Your task to perform on an android device: Open calendar and show me the first week of next month Image 0: 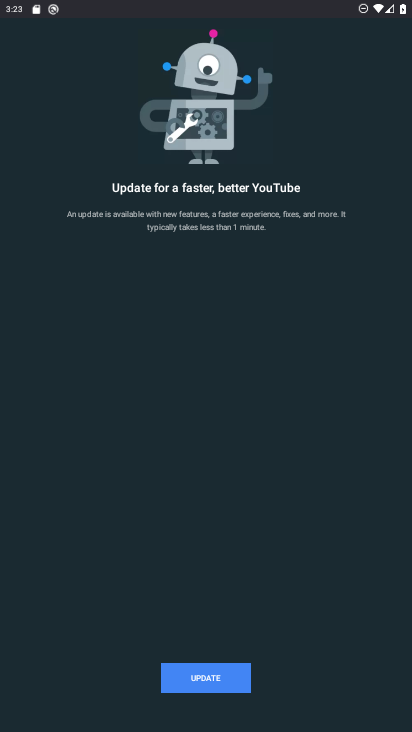
Step 0: press home button
Your task to perform on an android device: Open calendar and show me the first week of next month Image 1: 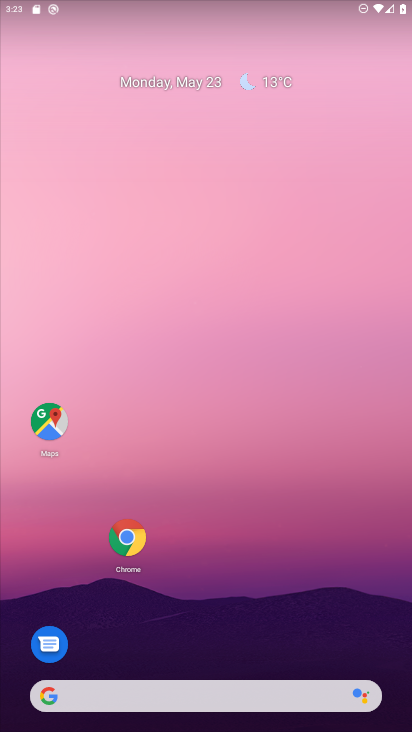
Step 1: drag from (350, 567) to (273, 152)
Your task to perform on an android device: Open calendar and show me the first week of next month Image 2: 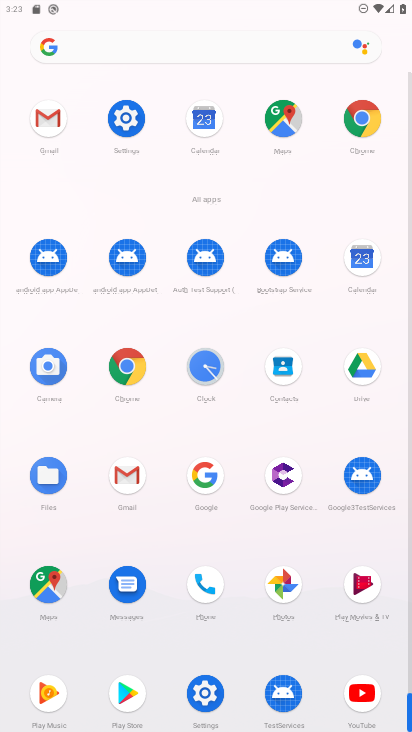
Step 2: click (211, 113)
Your task to perform on an android device: Open calendar and show me the first week of next month Image 3: 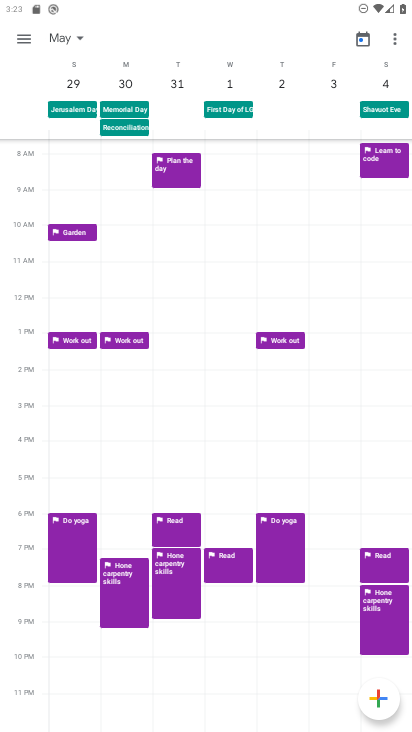
Step 3: click (73, 33)
Your task to perform on an android device: Open calendar and show me the first week of next month Image 4: 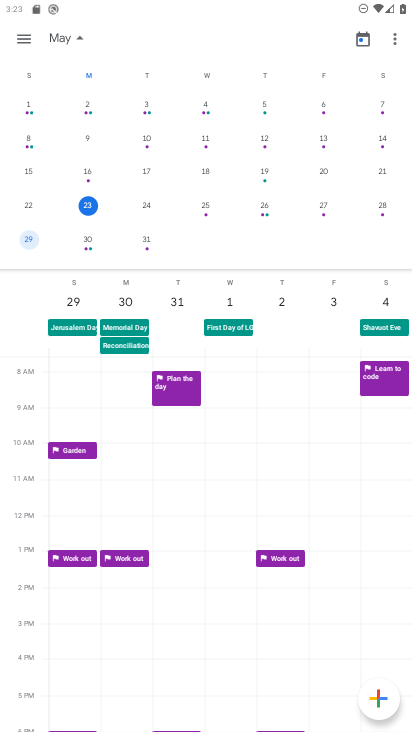
Step 4: drag from (305, 132) to (0, 126)
Your task to perform on an android device: Open calendar and show me the first week of next month Image 5: 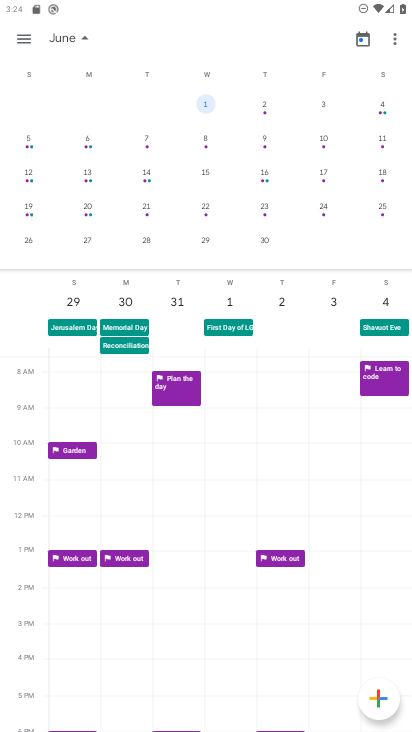
Step 5: click (27, 41)
Your task to perform on an android device: Open calendar and show me the first week of next month Image 6: 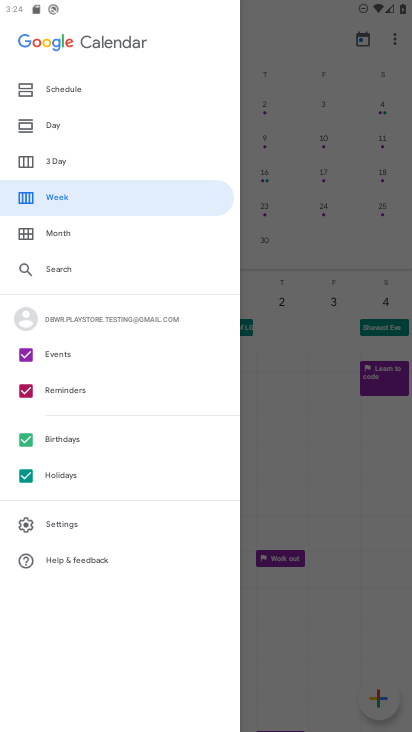
Step 6: click (68, 193)
Your task to perform on an android device: Open calendar and show me the first week of next month Image 7: 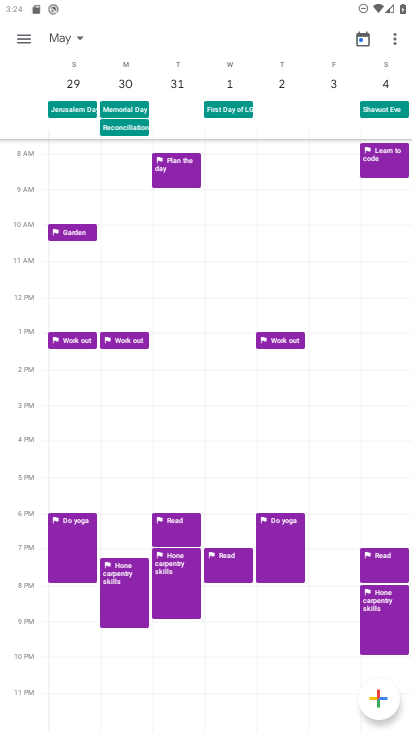
Step 7: drag from (347, 98) to (115, 99)
Your task to perform on an android device: Open calendar and show me the first week of next month Image 8: 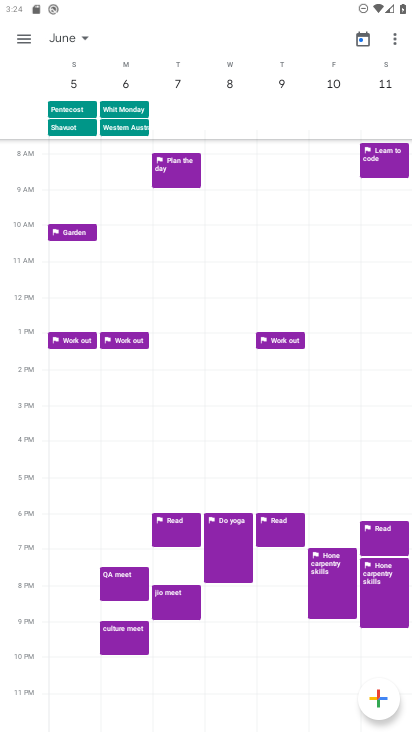
Step 8: click (74, 84)
Your task to perform on an android device: Open calendar and show me the first week of next month Image 9: 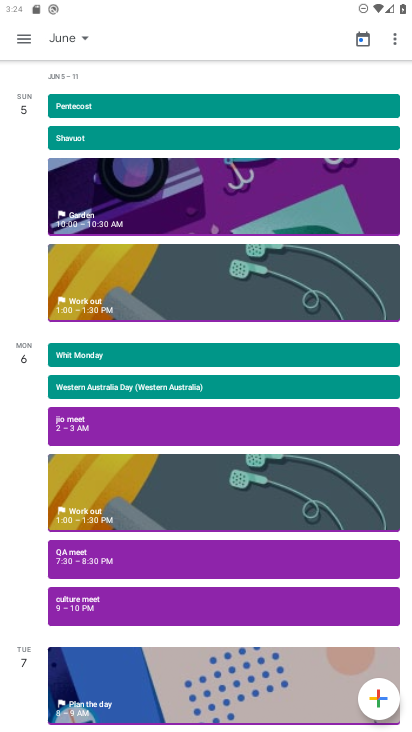
Step 9: click (79, 38)
Your task to perform on an android device: Open calendar and show me the first week of next month Image 10: 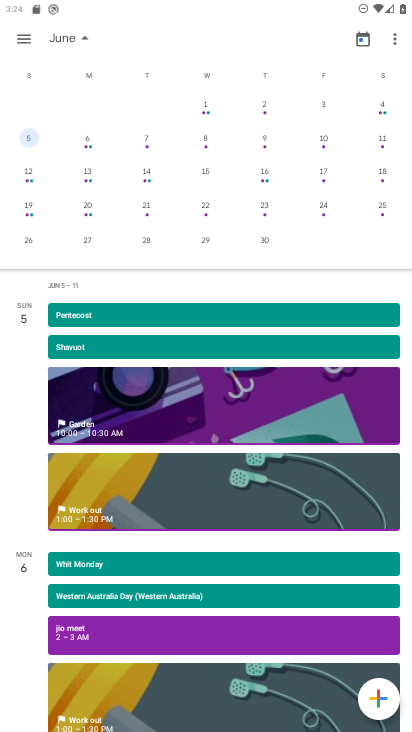
Step 10: click (21, 37)
Your task to perform on an android device: Open calendar and show me the first week of next month Image 11: 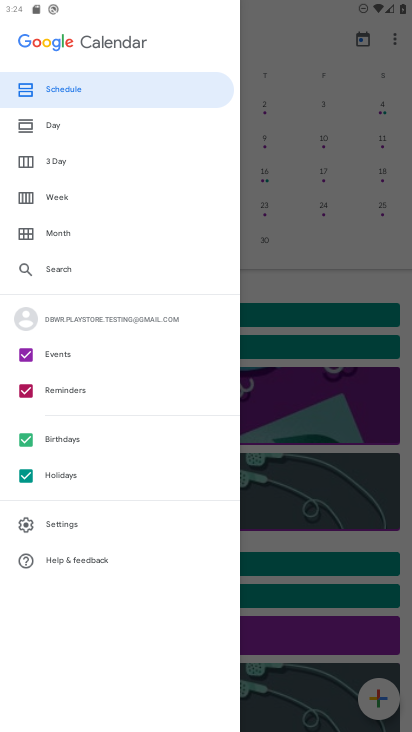
Step 11: click (56, 155)
Your task to perform on an android device: Open calendar and show me the first week of next month Image 12: 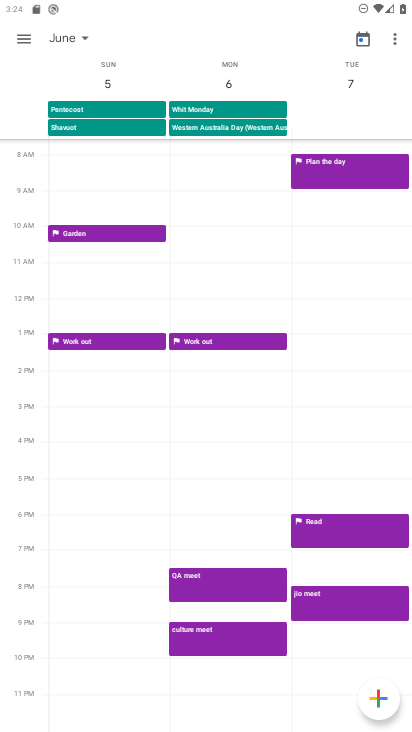
Step 12: click (28, 49)
Your task to perform on an android device: Open calendar and show me the first week of next month Image 13: 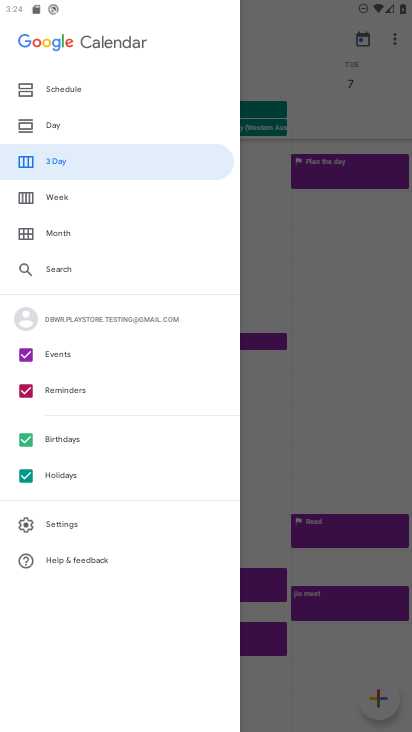
Step 13: click (50, 199)
Your task to perform on an android device: Open calendar and show me the first week of next month Image 14: 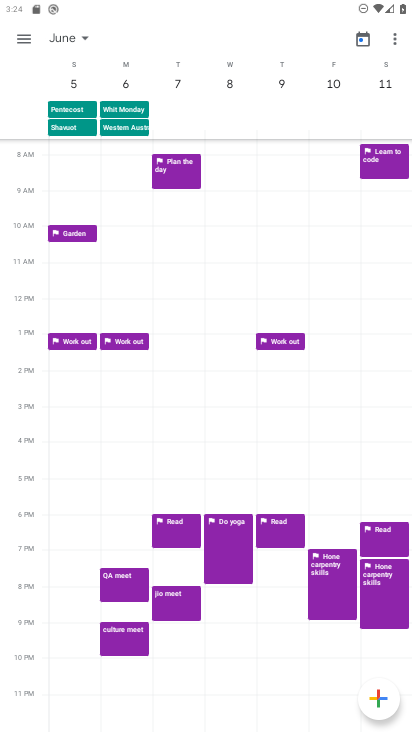
Step 14: task complete